Your task to perform on an android device: show emergency info Image 0: 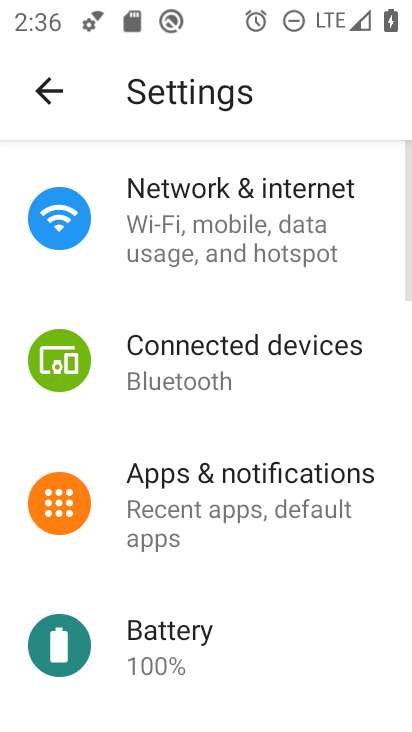
Step 0: drag from (366, 556) to (366, 439)
Your task to perform on an android device: show emergency info Image 1: 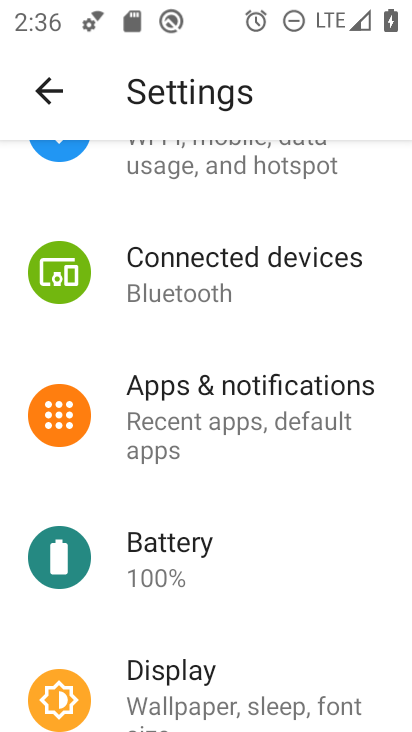
Step 1: drag from (351, 533) to (361, 436)
Your task to perform on an android device: show emergency info Image 2: 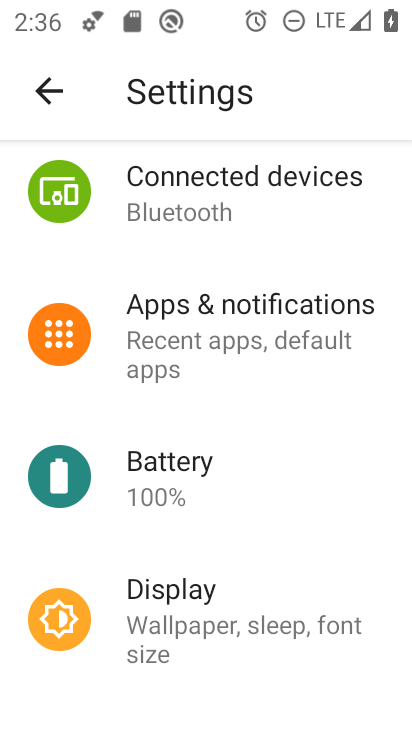
Step 2: drag from (357, 535) to (355, 430)
Your task to perform on an android device: show emergency info Image 3: 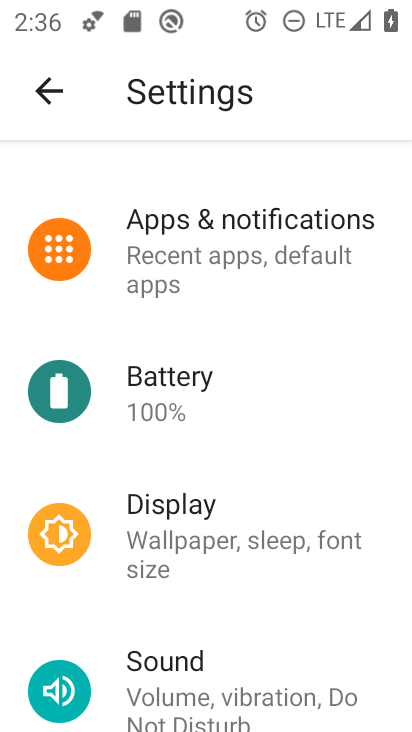
Step 3: drag from (357, 612) to (360, 476)
Your task to perform on an android device: show emergency info Image 4: 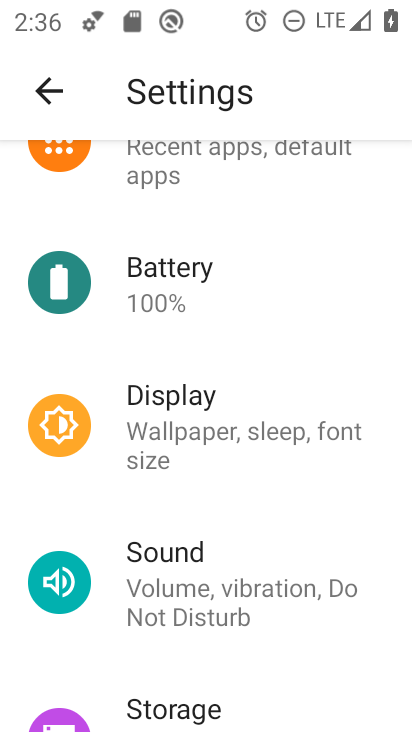
Step 4: drag from (377, 595) to (383, 510)
Your task to perform on an android device: show emergency info Image 5: 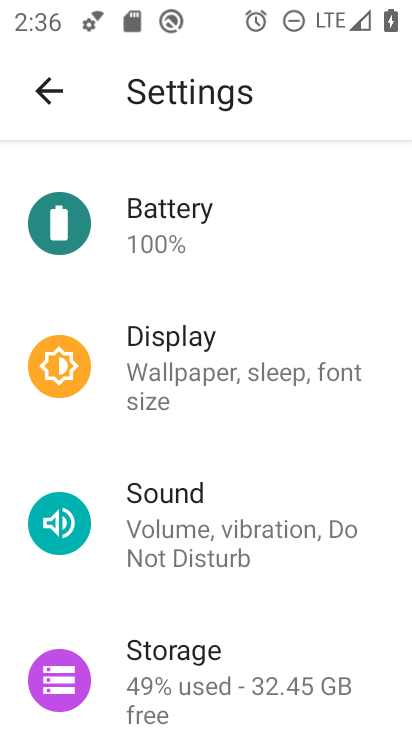
Step 5: drag from (373, 607) to (382, 502)
Your task to perform on an android device: show emergency info Image 6: 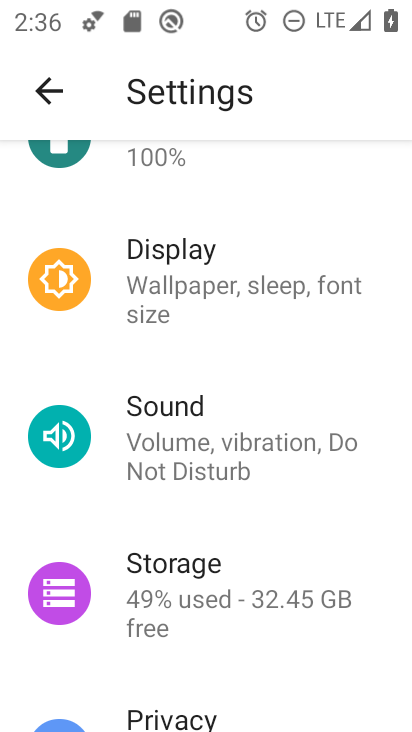
Step 6: drag from (366, 609) to (370, 487)
Your task to perform on an android device: show emergency info Image 7: 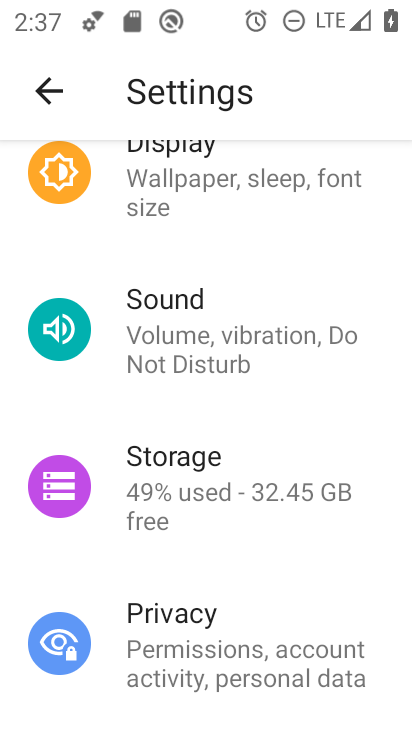
Step 7: drag from (366, 585) to (369, 473)
Your task to perform on an android device: show emergency info Image 8: 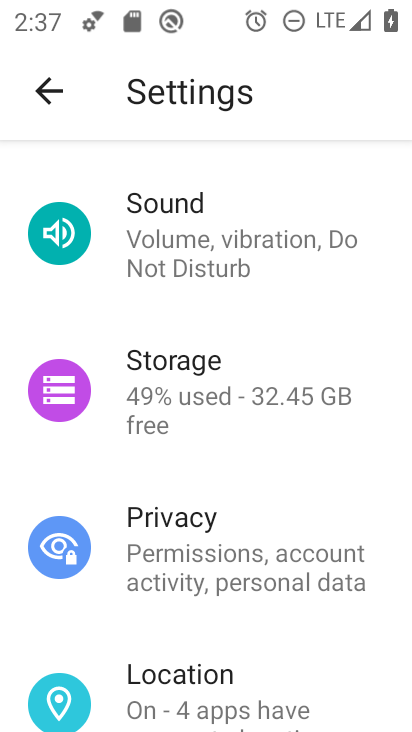
Step 8: drag from (358, 629) to (372, 509)
Your task to perform on an android device: show emergency info Image 9: 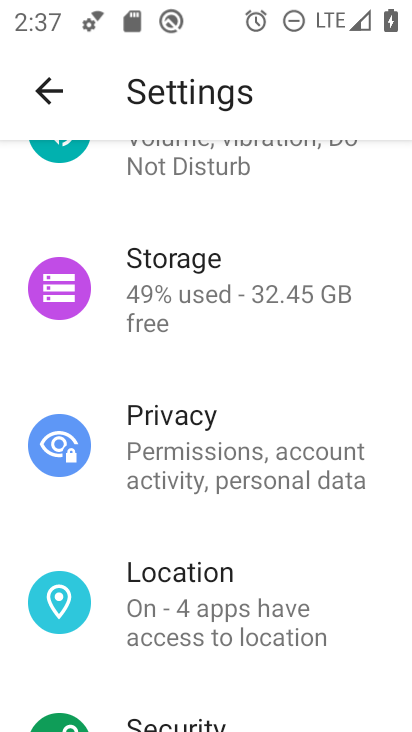
Step 9: drag from (365, 638) to (367, 507)
Your task to perform on an android device: show emergency info Image 10: 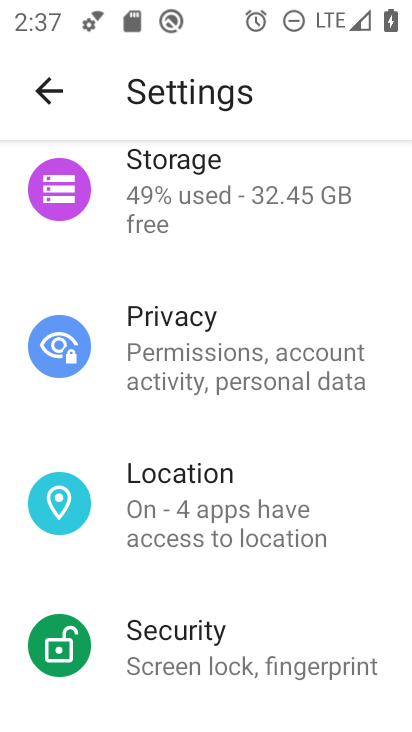
Step 10: drag from (353, 521) to (368, 336)
Your task to perform on an android device: show emergency info Image 11: 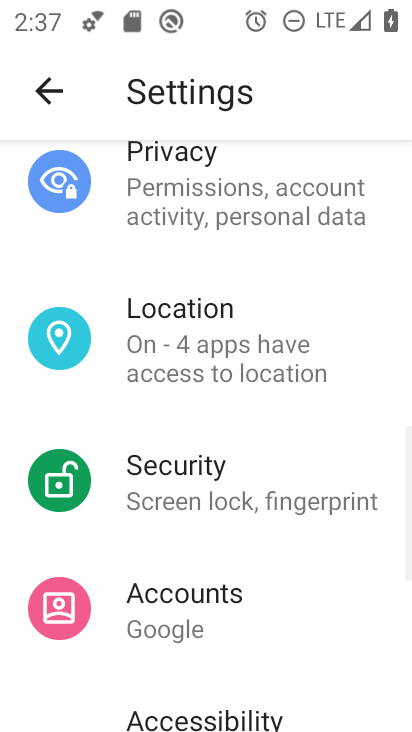
Step 11: drag from (341, 560) to (345, 410)
Your task to perform on an android device: show emergency info Image 12: 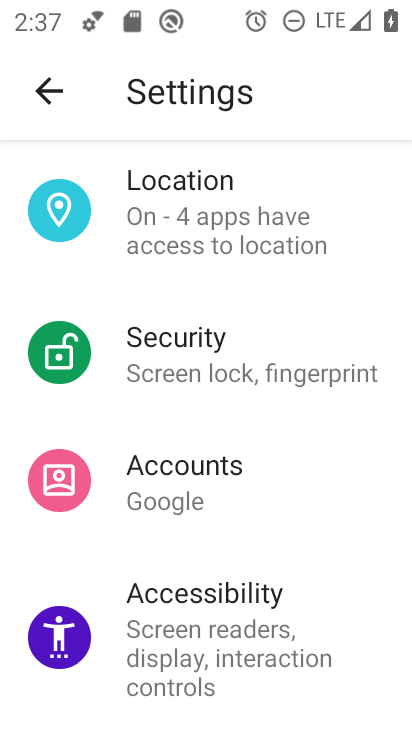
Step 12: drag from (331, 587) to (336, 417)
Your task to perform on an android device: show emergency info Image 13: 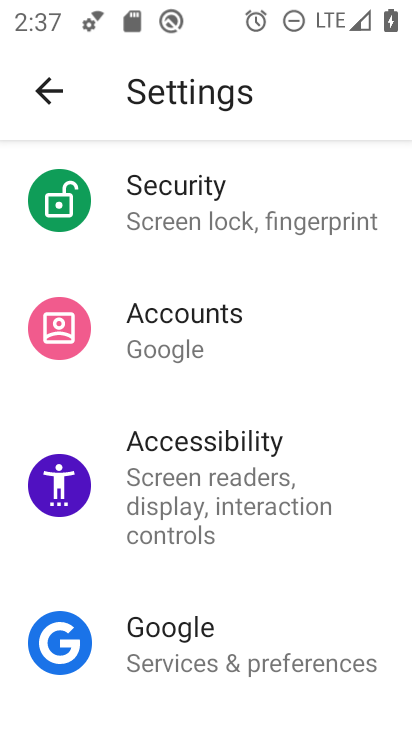
Step 13: drag from (342, 614) to (343, 385)
Your task to perform on an android device: show emergency info Image 14: 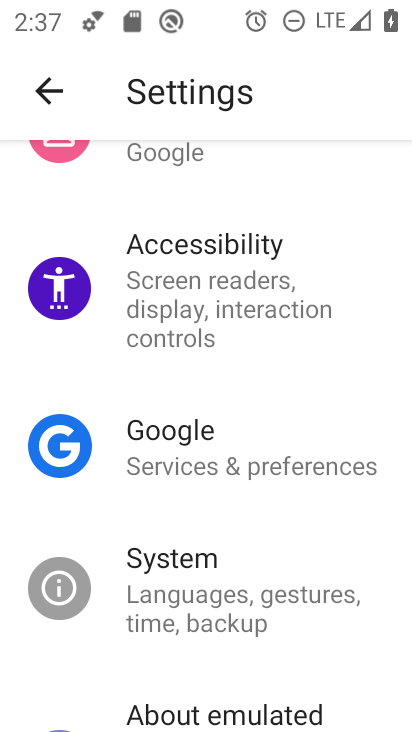
Step 14: drag from (343, 640) to (340, 446)
Your task to perform on an android device: show emergency info Image 15: 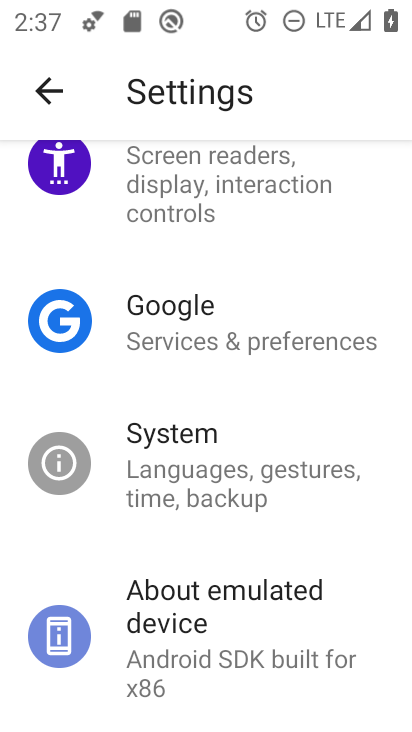
Step 15: click (217, 634)
Your task to perform on an android device: show emergency info Image 16: 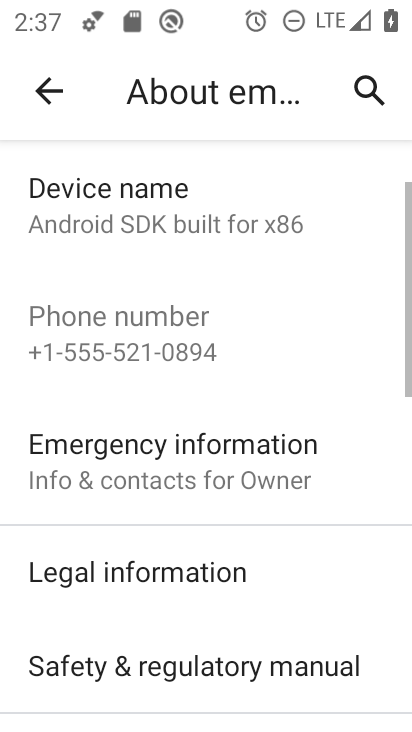
Step 16: click (241, 477)
Your task to perform on an android device: show emergency info Image 17: 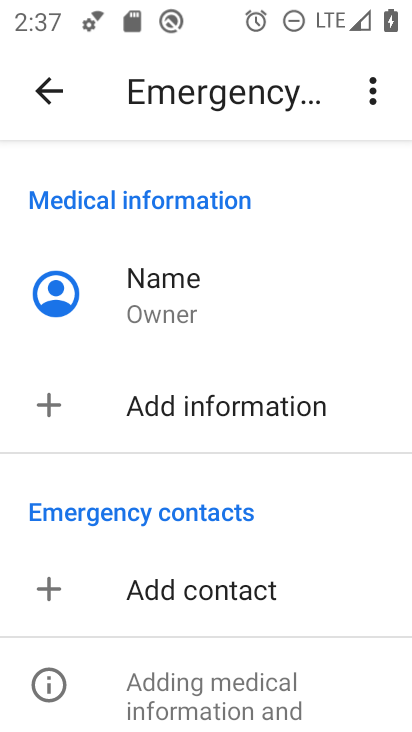
Step 17: task complete